Your task to perform on an android device: Add "alienware area 51" to the cart on amazon Image 0: 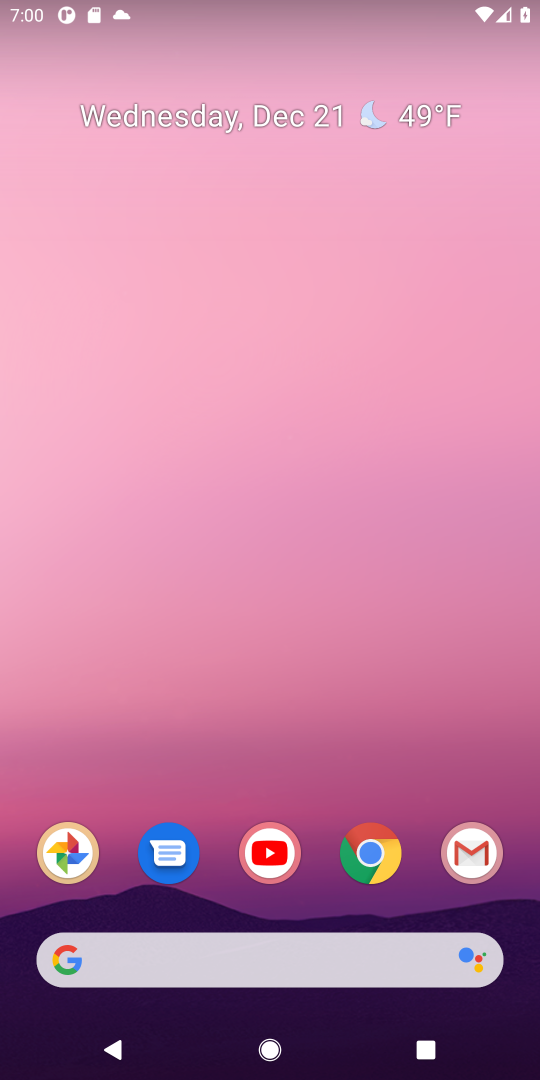
Step 0: click (358, 852)
Your task to perform on an android device: Add "alienware area 51" to the cart on amazon Image 1: 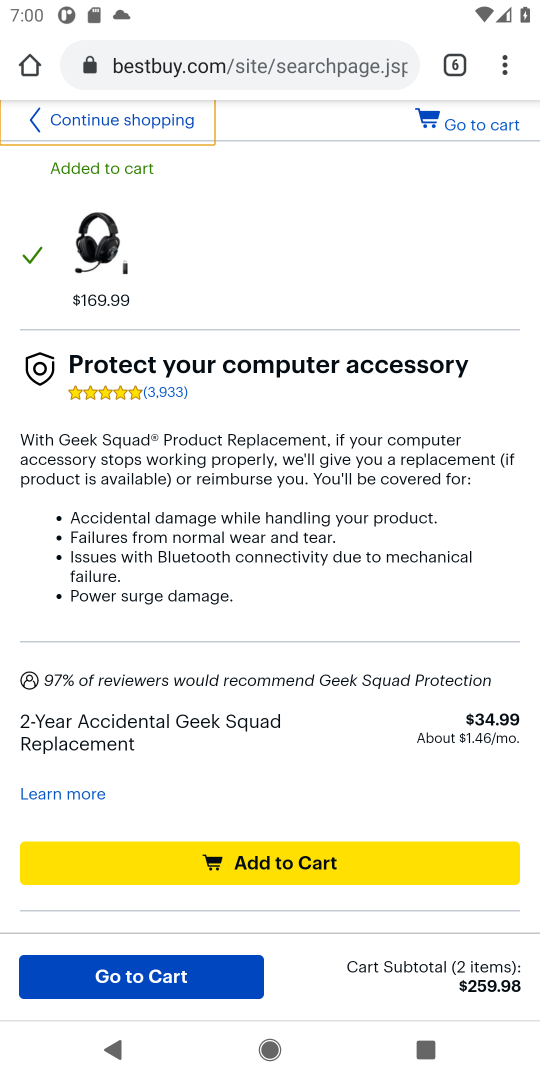
Step 1: click (456, 72)
Your task to perform on an android device: Add "alienware area 51" to the cart on amazon Image 2: 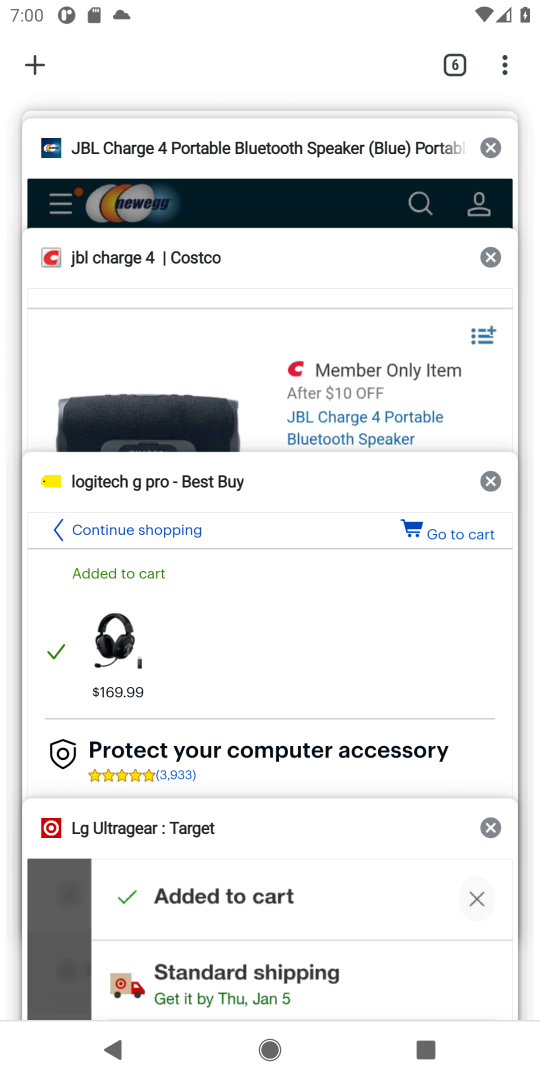
Step 2: click (27, 65)
Your task to perform on an android device: Add "alienware area 51" to the cart on amazon Image 3: 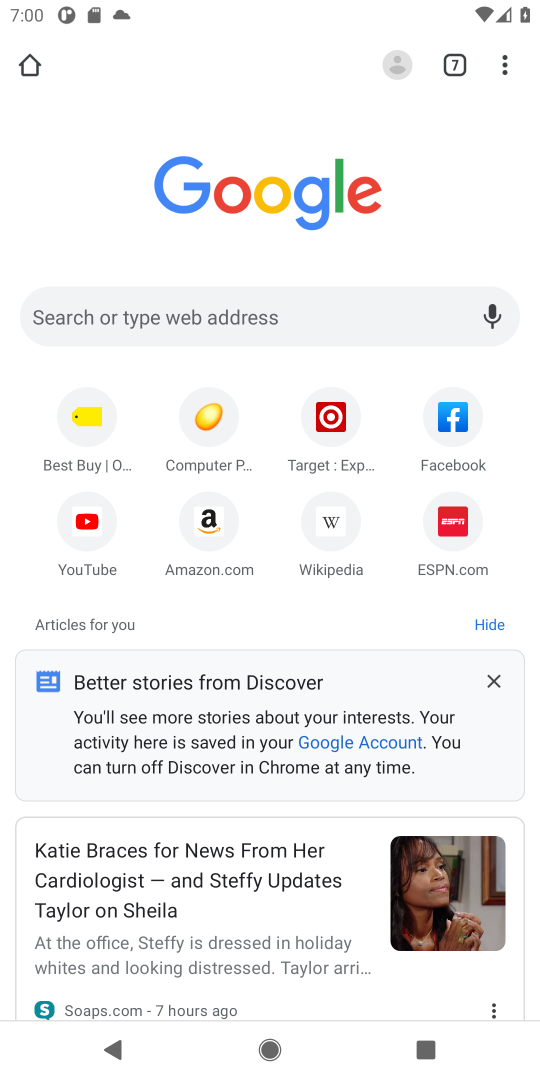
Step 3: click (213, 507)
Your task to perform on an android device: Add "alienware area 51" to the cart on amazon Image 4: 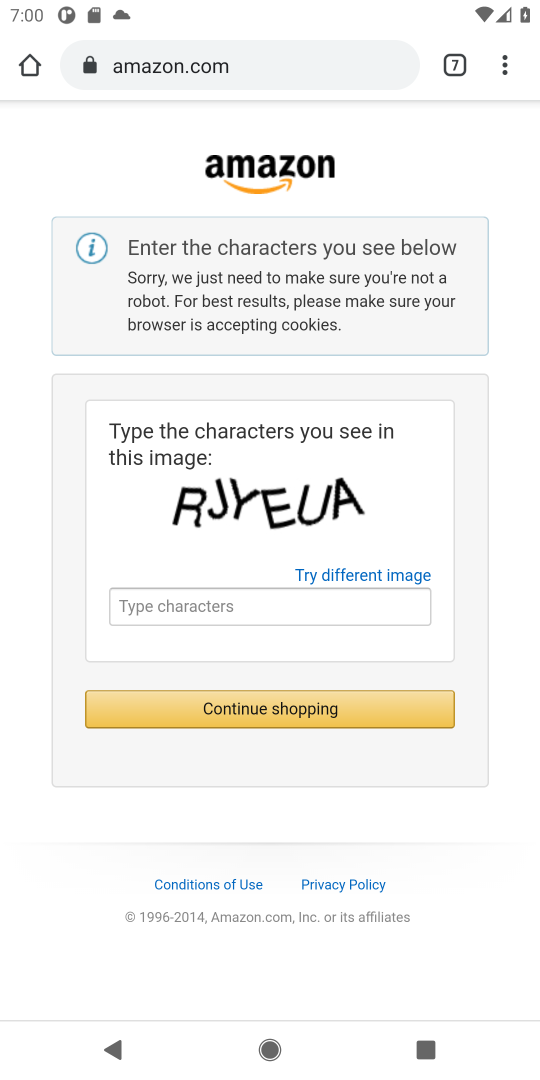
Step 4: click (137, 601)
Your task to perform on an android device: Add "alienware area 51" to the cart on amazon Image 5: 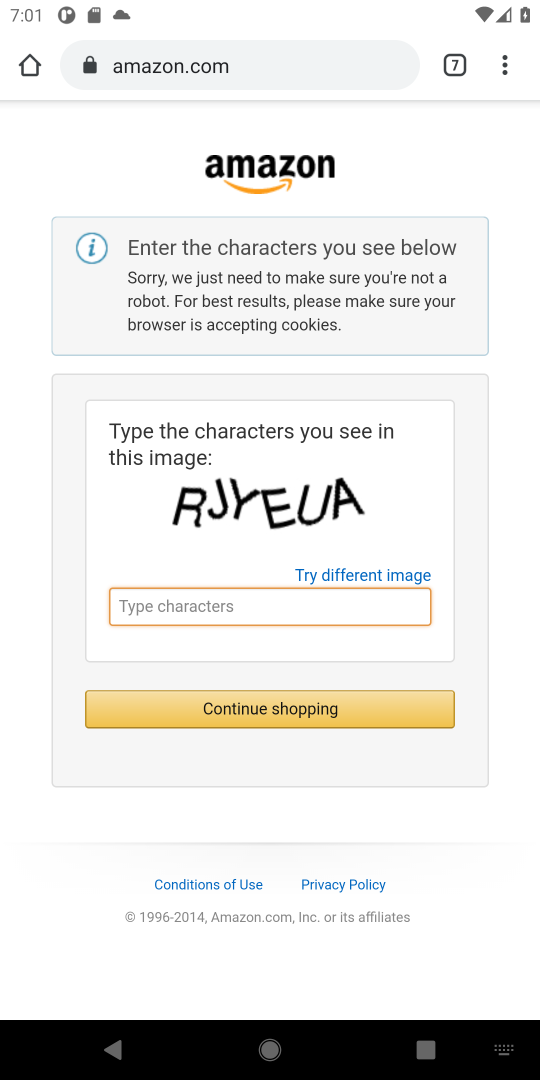
Step 5: type "RJYEUA"
Your task to perform on an android device: Add "alienware area 51" to the cart on amazon Image 6: 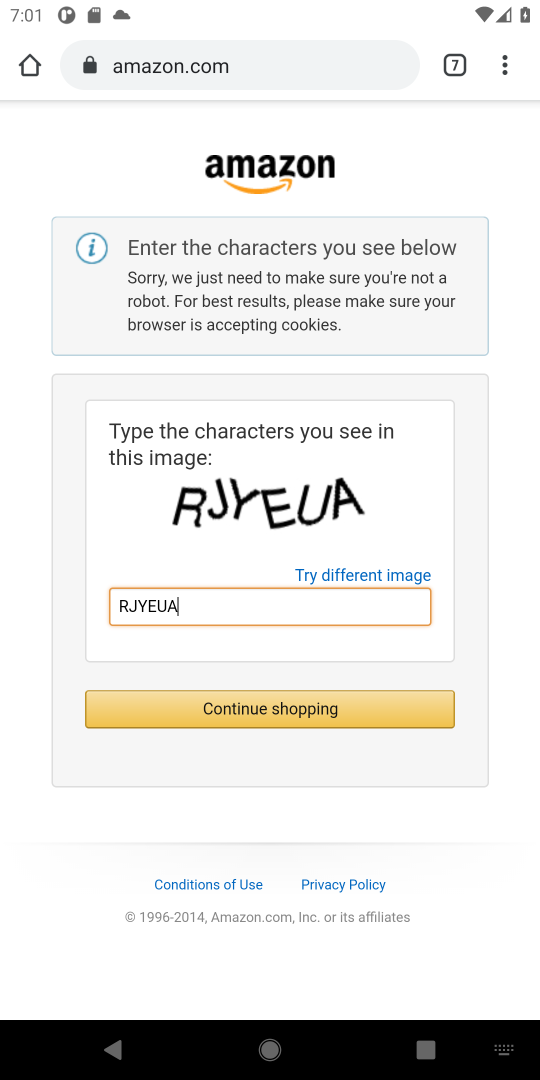
Step 6: click (303, 704)
Your task to perform on an android device: Add "alienware area 51" to the cart on amazon Image 7: 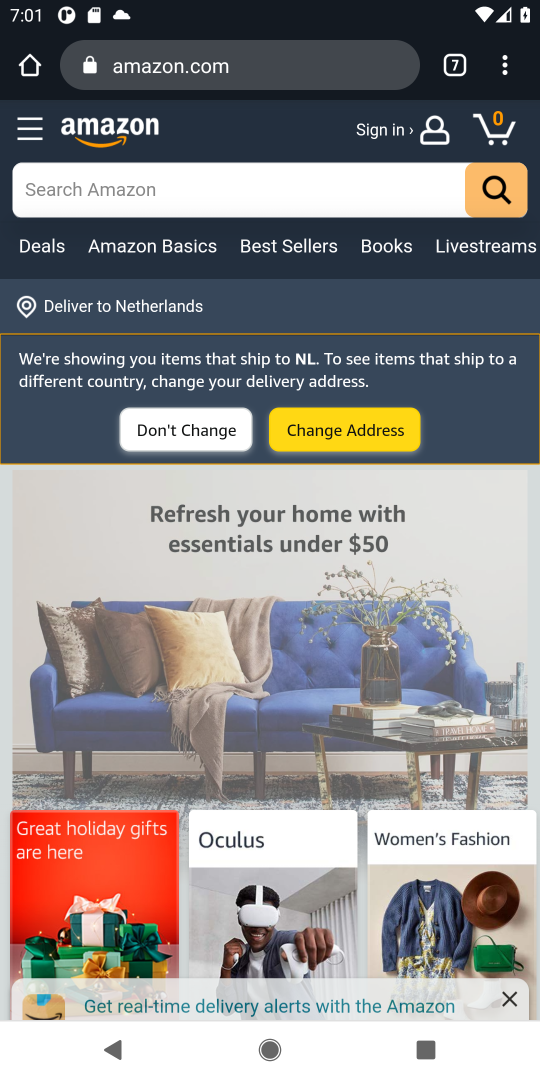
Step 7: click (85, 195)
Your task to perform on an android device: Add "alienware area 51" to the cart on amazon Image 8: 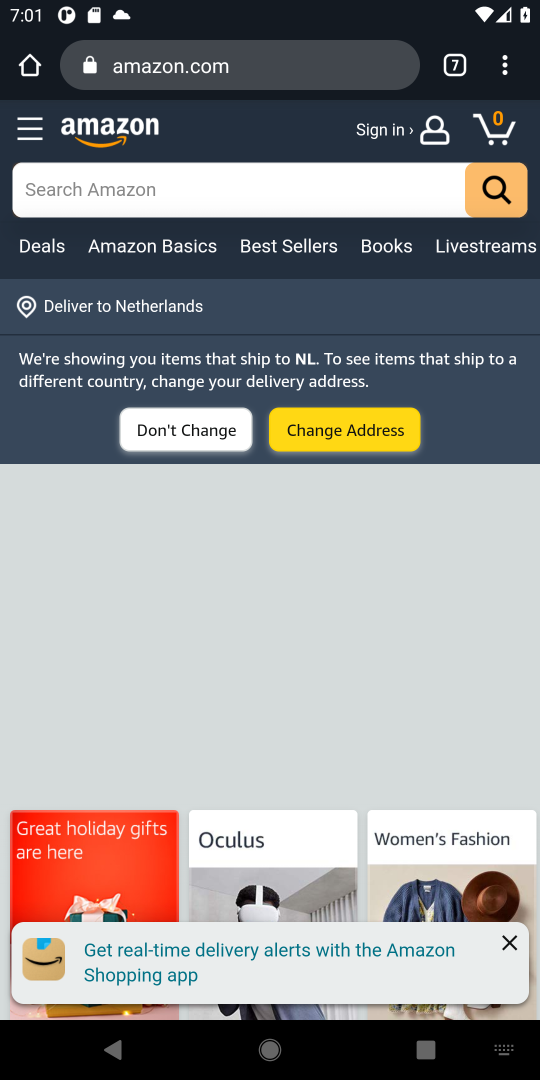
Step 8: type "alienware area 51"
Your task to perform on an android device: Add "alienware area 51" to the cart on amazon Image 9: 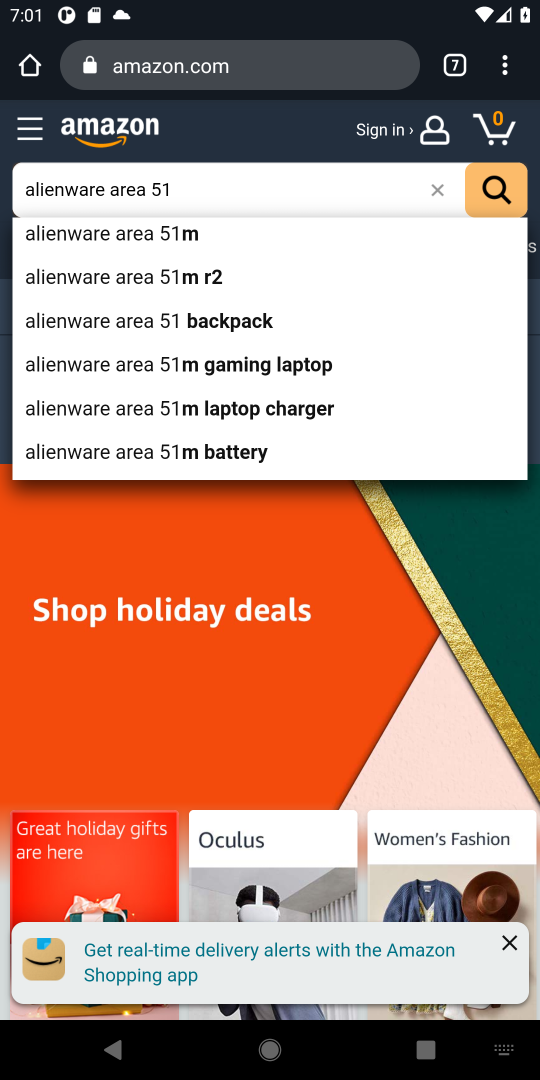
Step 9: click (163, 234)
Your task to perform on an android device: Add "alienware area 51" to the cart on amazon Image 10: 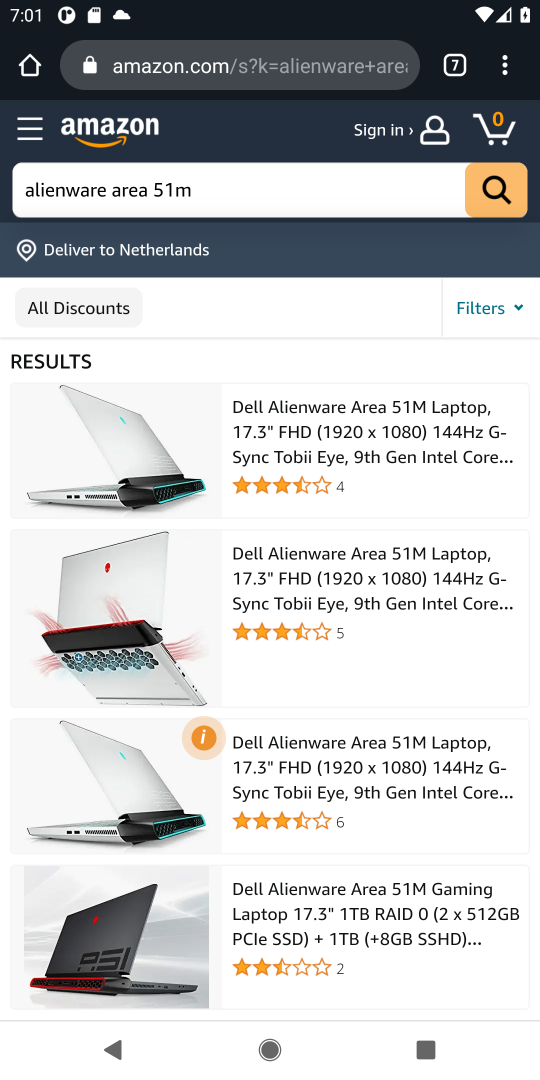
Step 10: click (416, 441)
Your task to perform on an android device: Add "alienware area 51" to the cart on amazon Image 11: 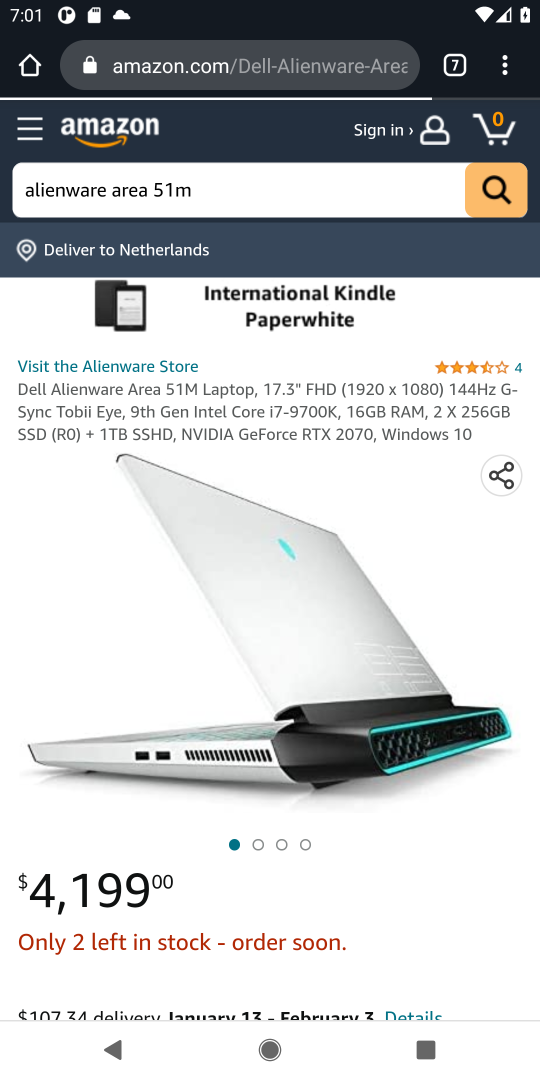
Step 11: drag from (317, 892) to (461, 136)
Your task to perform on an android device: Add "alienware area 51" to the cart on amazon Image 12: 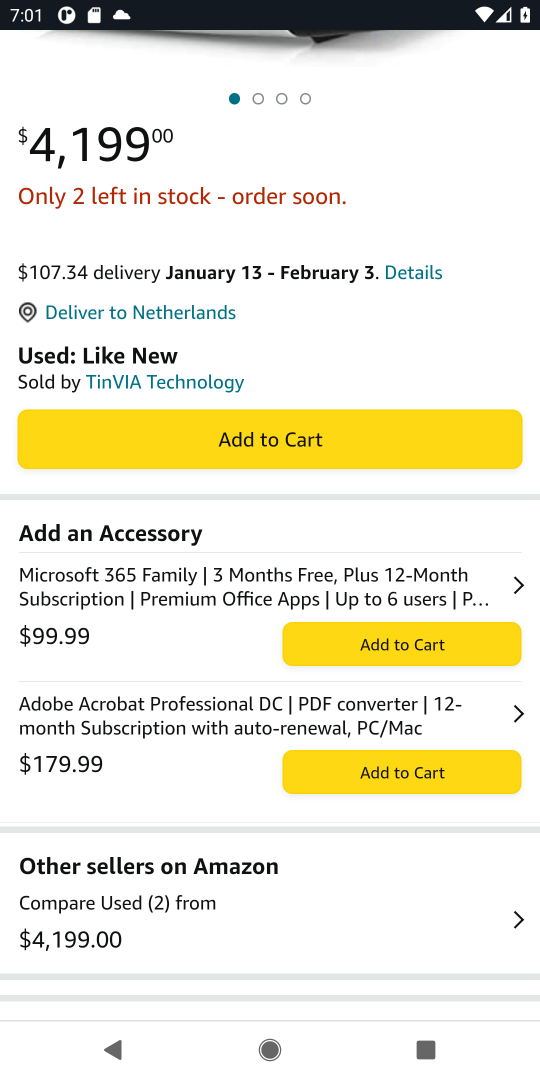
Step 12: click (325, 445)
Your task to perform on an android device: Add "alienware area 51" to the cart on amazon Image 13: 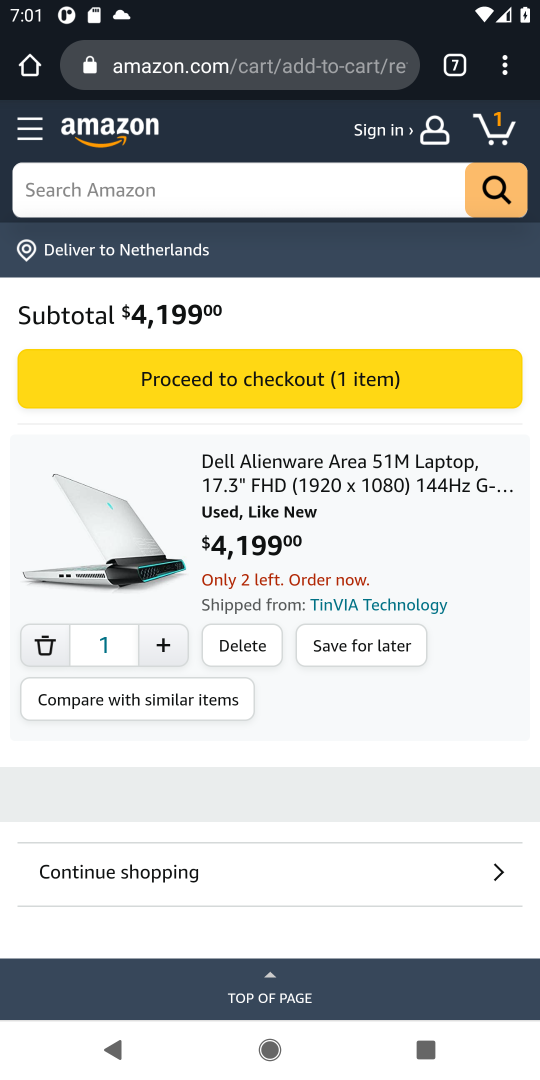
Step 13: task complete